Your task to perform on an android device: When is my next meeting? Image 0: 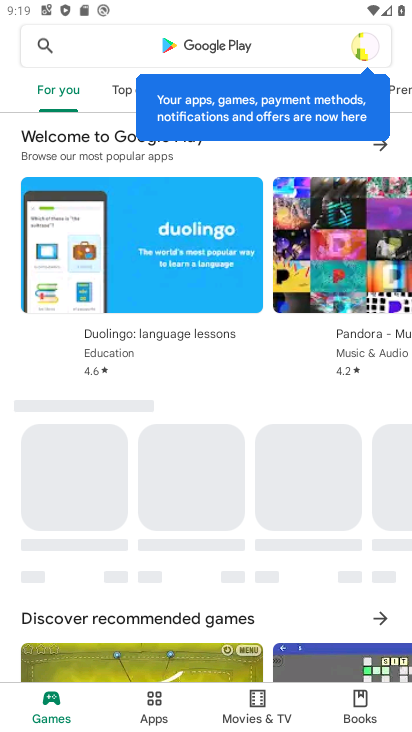
Step 0: press home button
Your task to perform on an android device: When is my next meeting? Image 1: 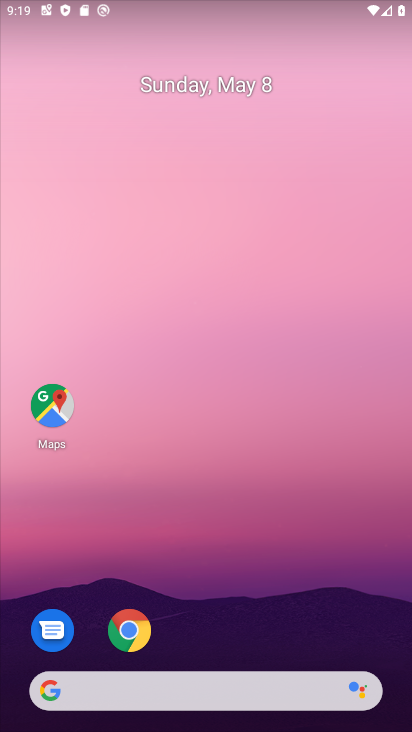
Step 1: drag from (182, 696) to (279, 193)
Your task to perform on an android device: When is my next meeting? Image 2: 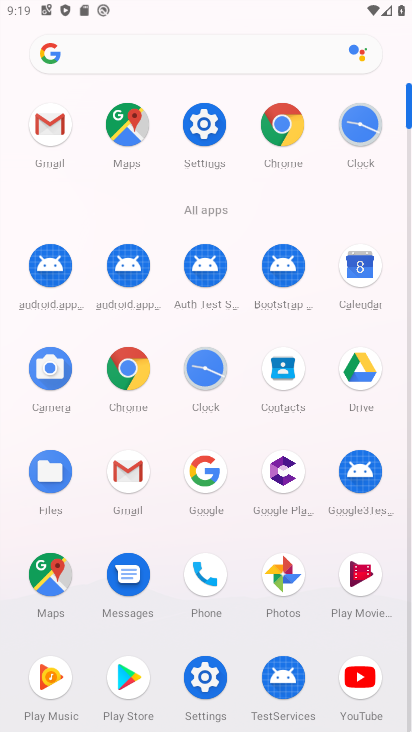
Step 2: click (362, 274)
Your task to perform on an android device: When is my next meeting? Image 3: 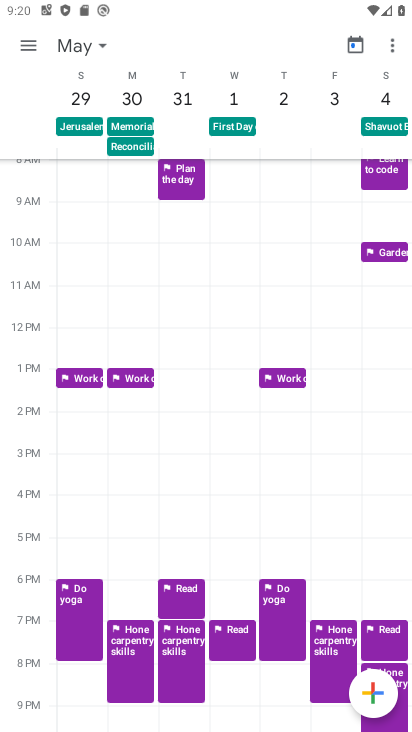
Step 3: click (62, 45)
Your task to perform on an android device: When is my next meeting? Image 4: 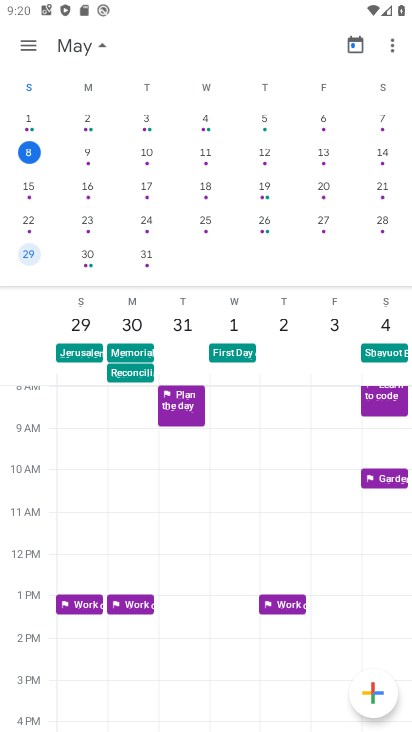
Step 4: click (28, 42)
Your task to perform on an android device: When is my next meeting? Image 5: 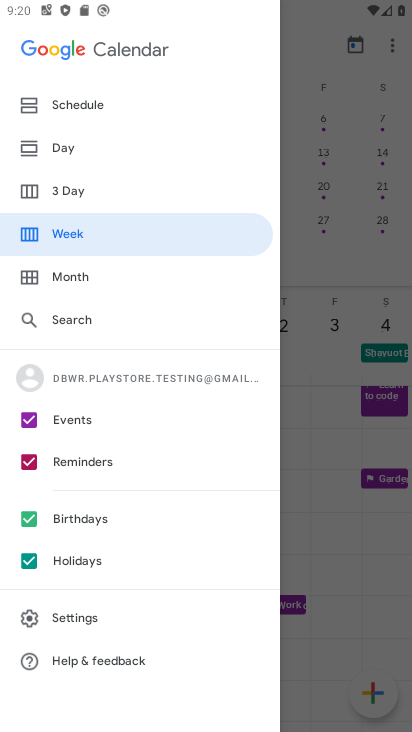
Step 5: click (94, 102)
Your task to perform on an android device: When is my next meeting? Image 6: 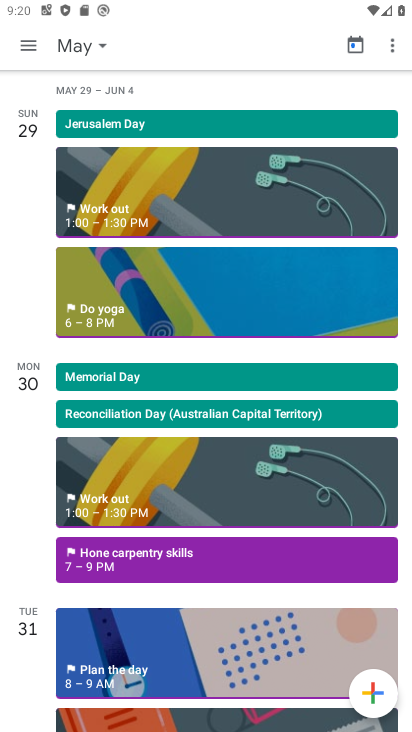
Step 6: click (83, 45)
Your task to perform on an android device: When is my next meeting? Image 7: 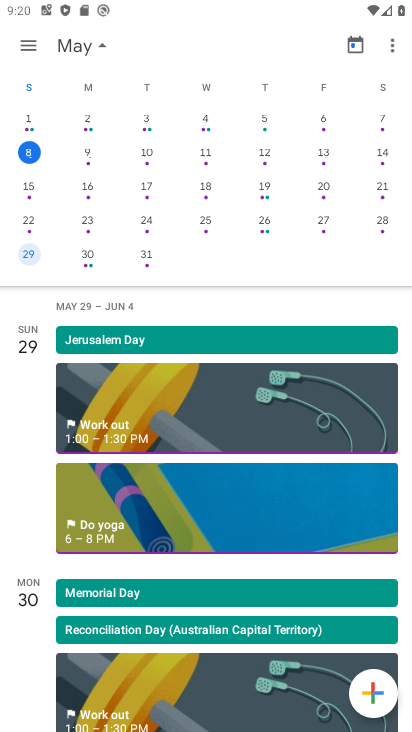
Step 7: click (29, 156)
Your task to perform on an android device: When is my next meeting? Image 8: 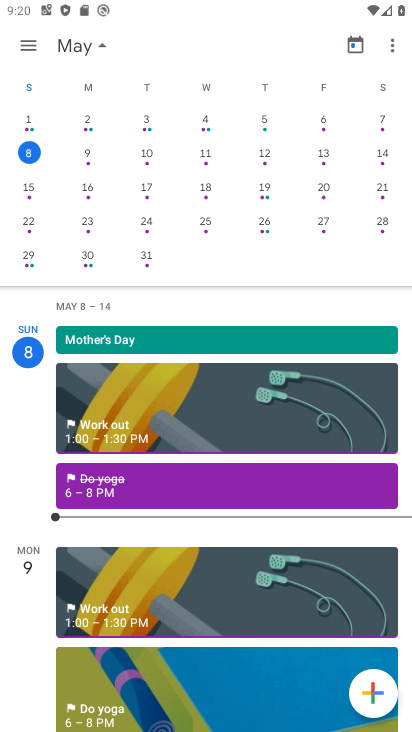
Step 8: click (34, 45)
Your task to perform on an android device: When is my next meeting? Image 9: 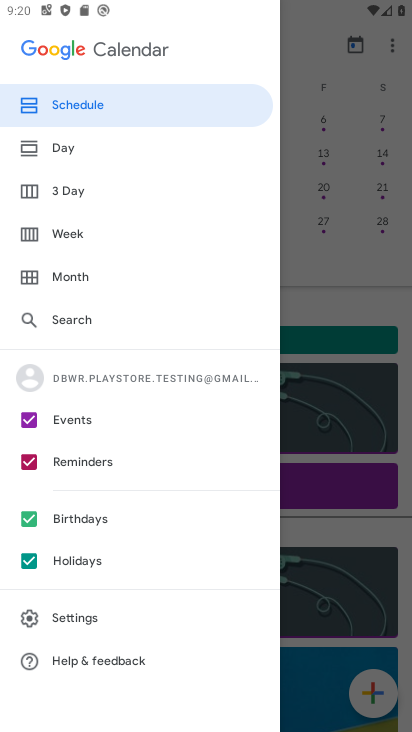
Step 9: click (68, 99)
Your task to perform on an android device: When is my next meeting? Image 10: 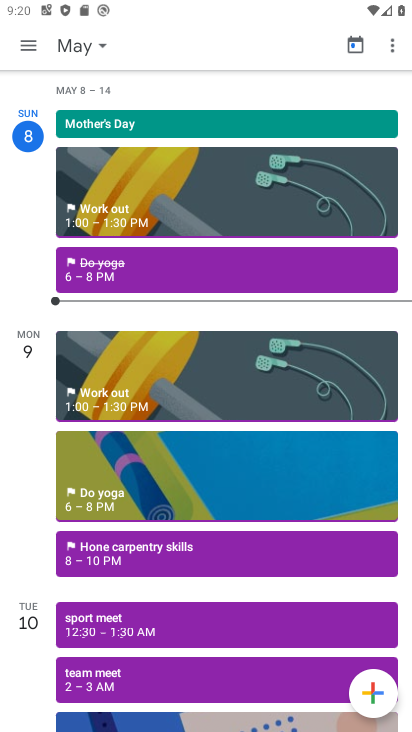
Step 10: click (185, 287)
Your task to perform on an android device: When is my next meeting? Image 11: 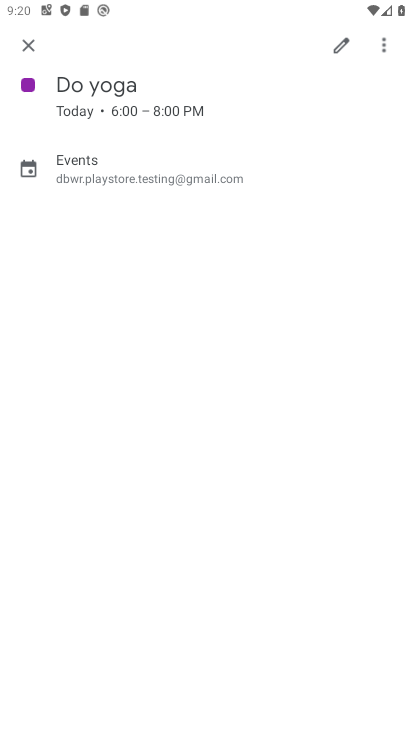
Step 11: task complete